Your task to perform on an android device: create a new album in the google photos Image 0: 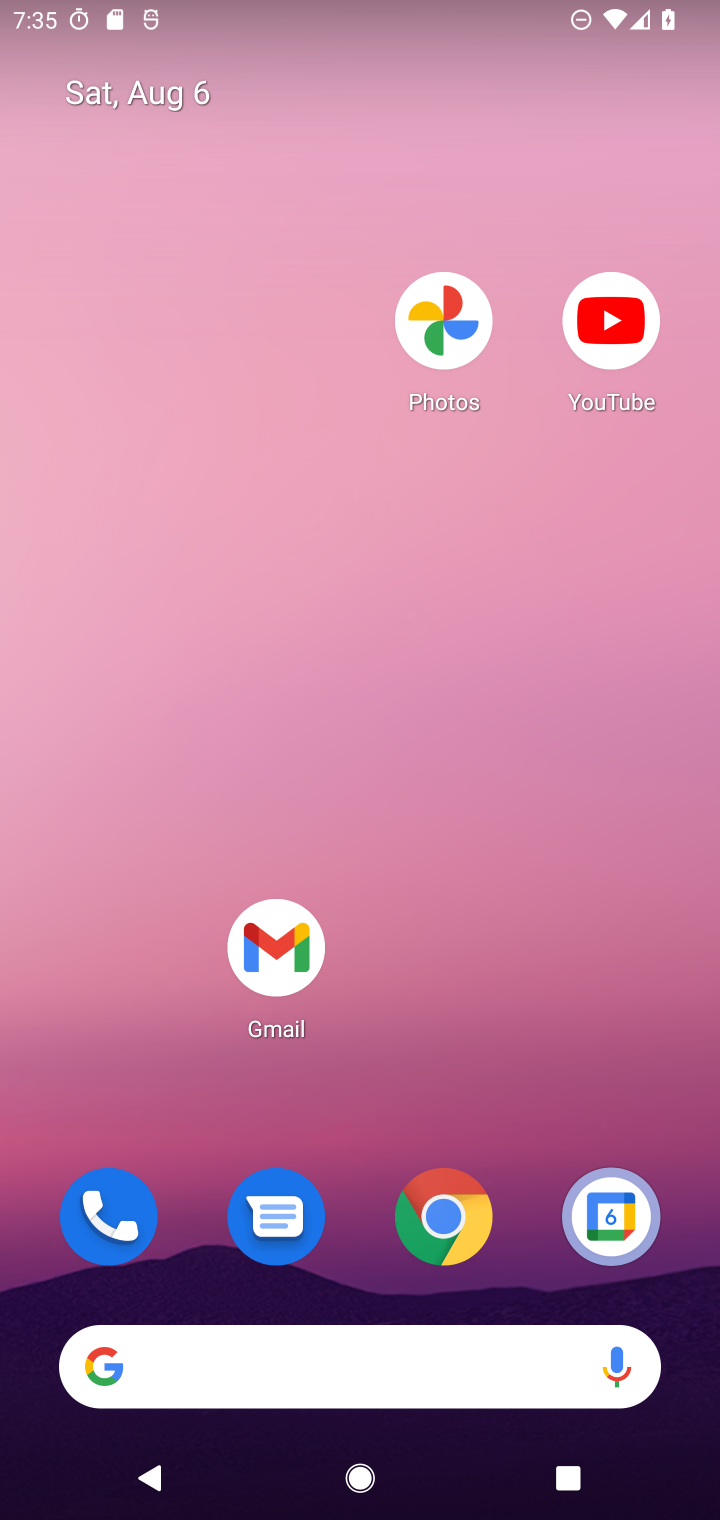
Step 0: drag from (556, 965) to (503, 156)
Your task to perform on an android device: create a new album in the google photos Image 1: 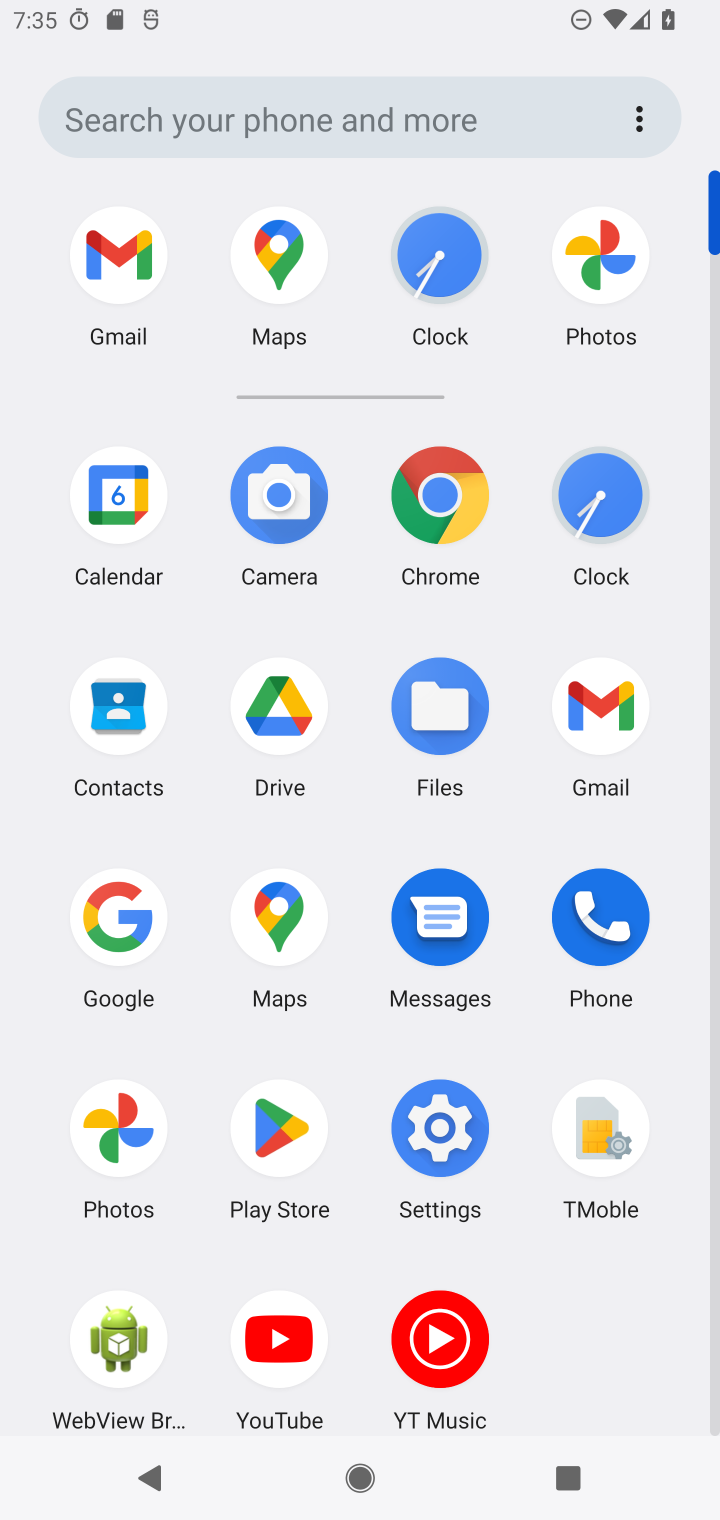
Step 1: click (130, 1132)
Your task to perform on an android device: create a new album in the google photos Image 2: 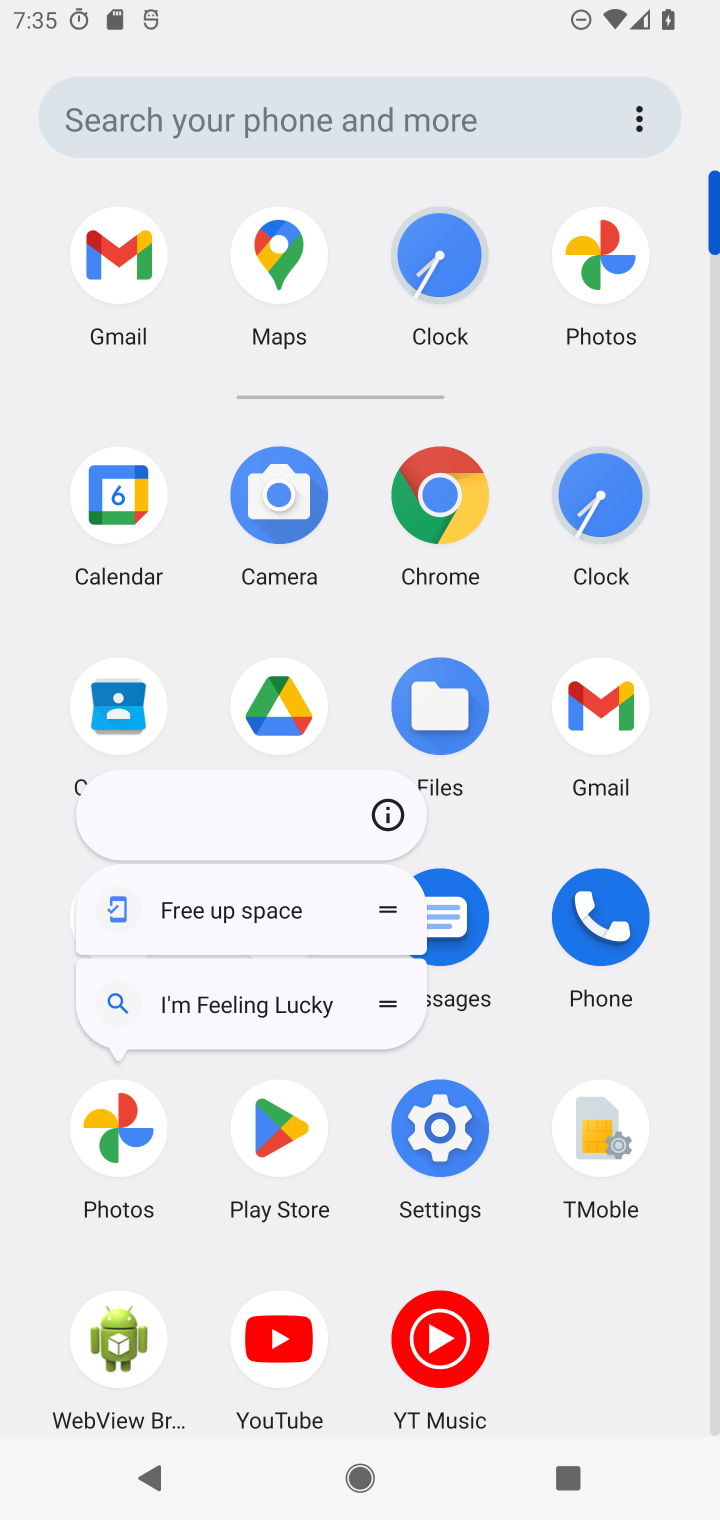
Step 2: click (130, 1127)
Your task to perform on an android device: create a new album in the google photos Image 3: 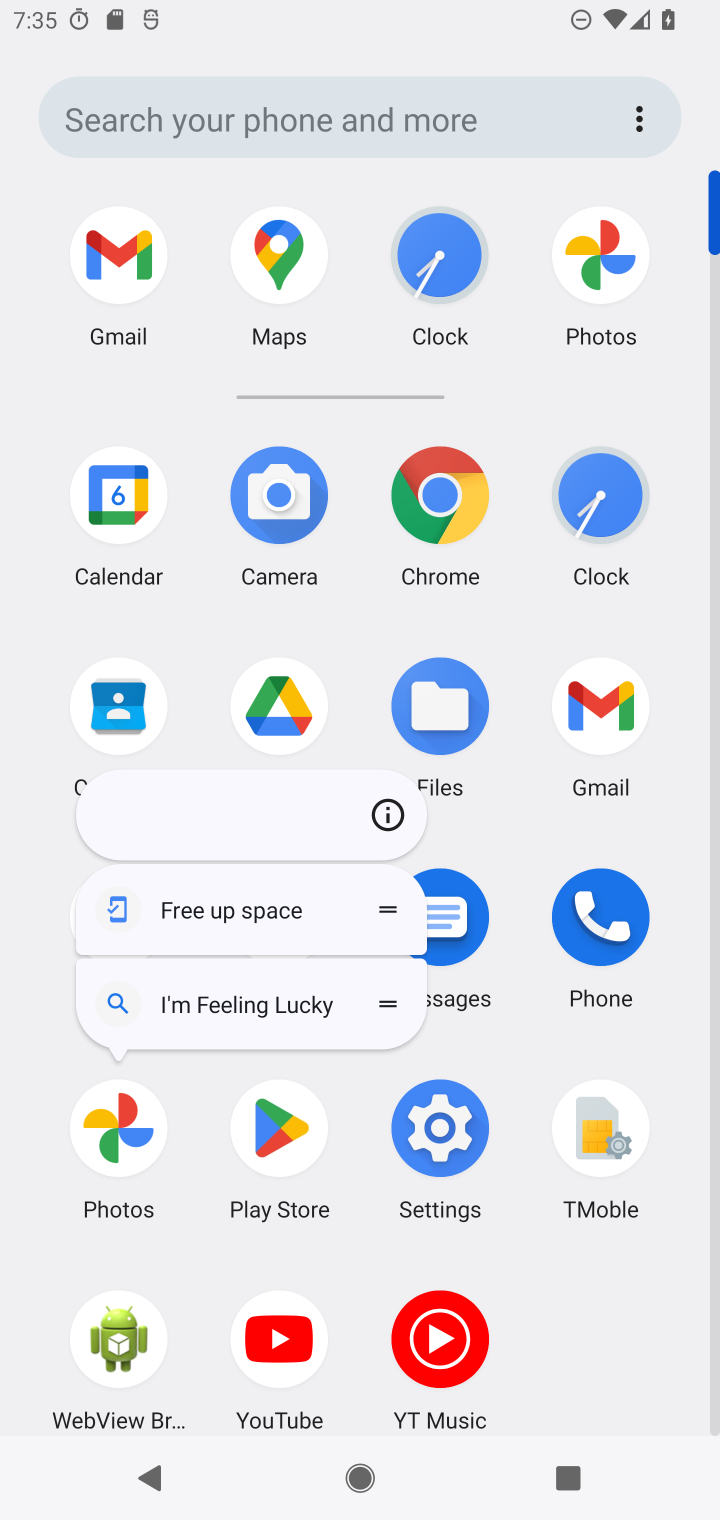
Step 3: click (130, 1114)
Your task to perform on an android device: create a new album in the google photos Image 4: 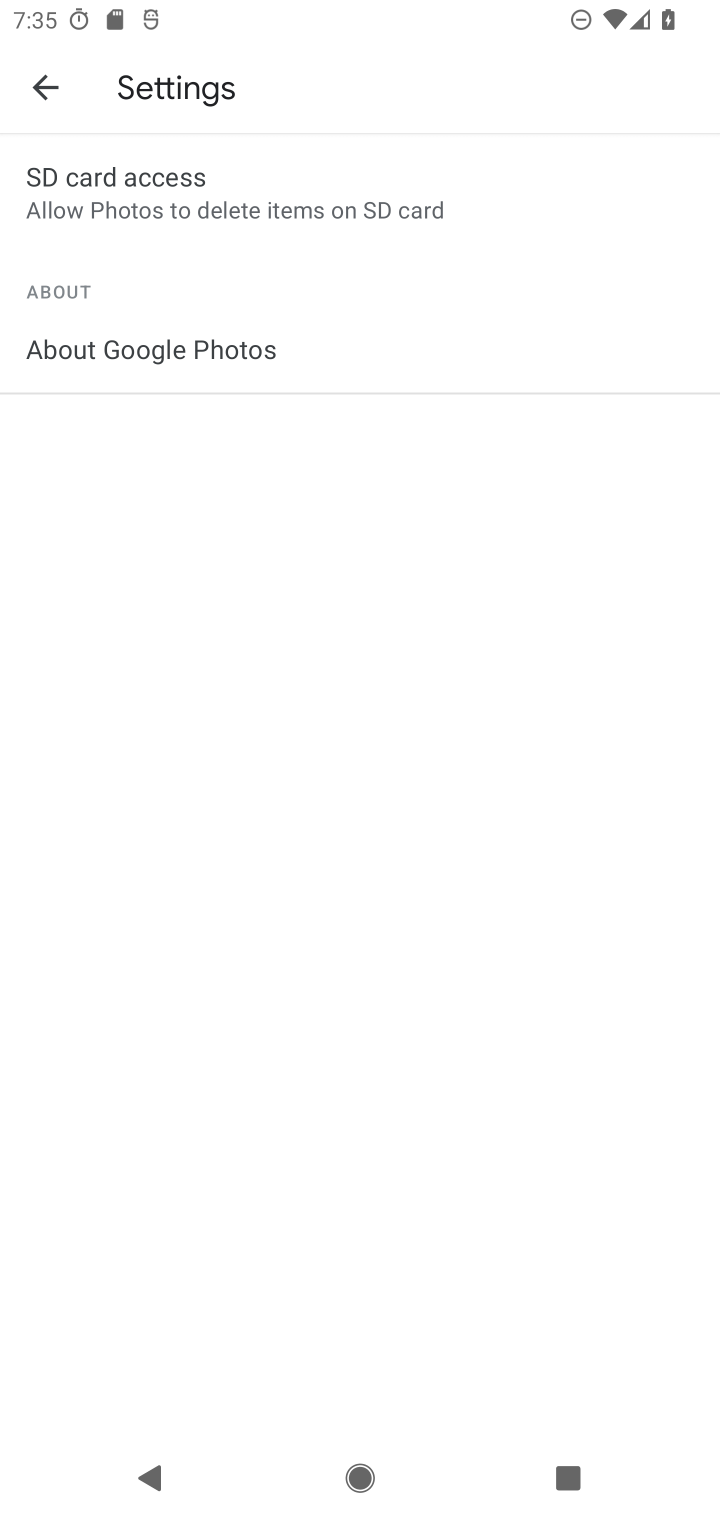
Step 4: click (44, 70)
Your task to perform on an android device: create a new album in the google photos Image 5: 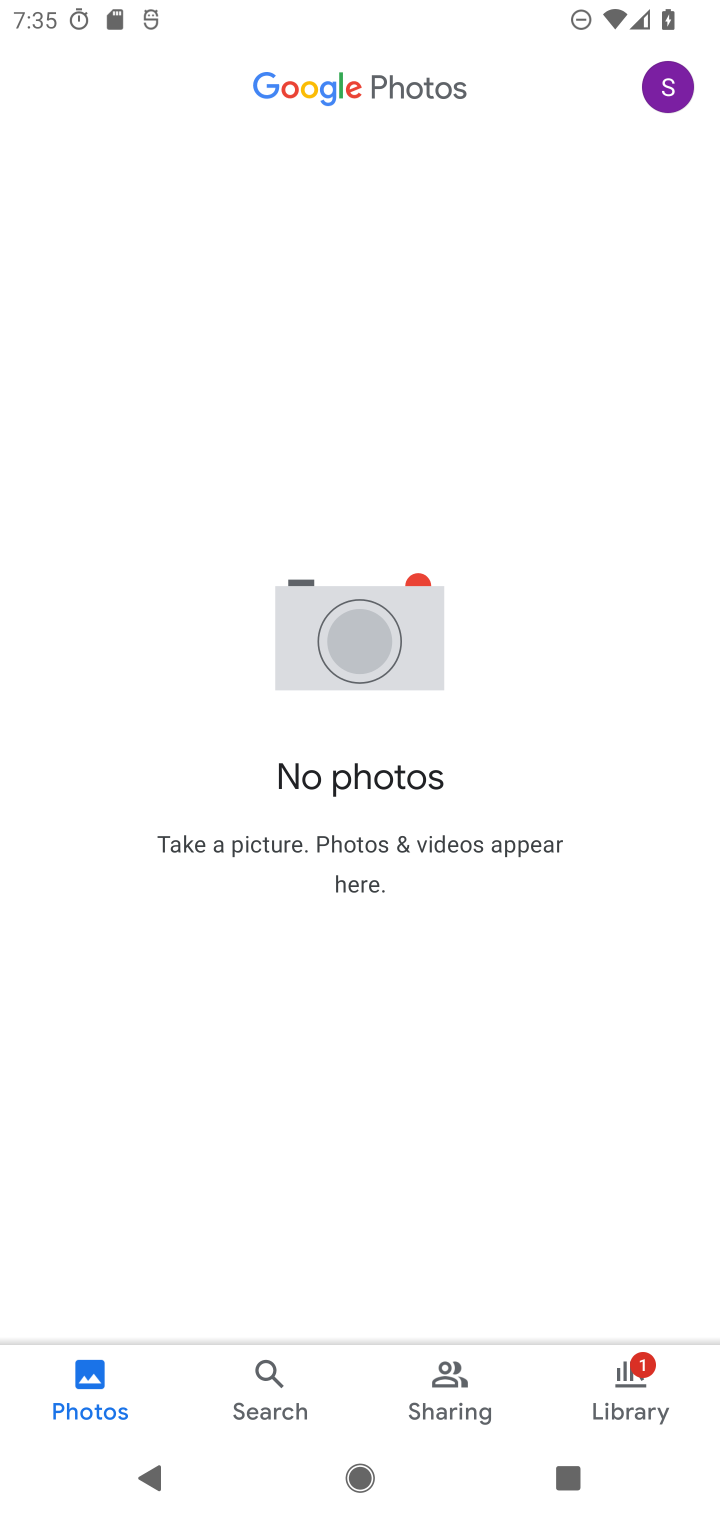
Step 5: click (664, 1399)
Your task to perform on an android device: create a new album in the google photos Image 6: 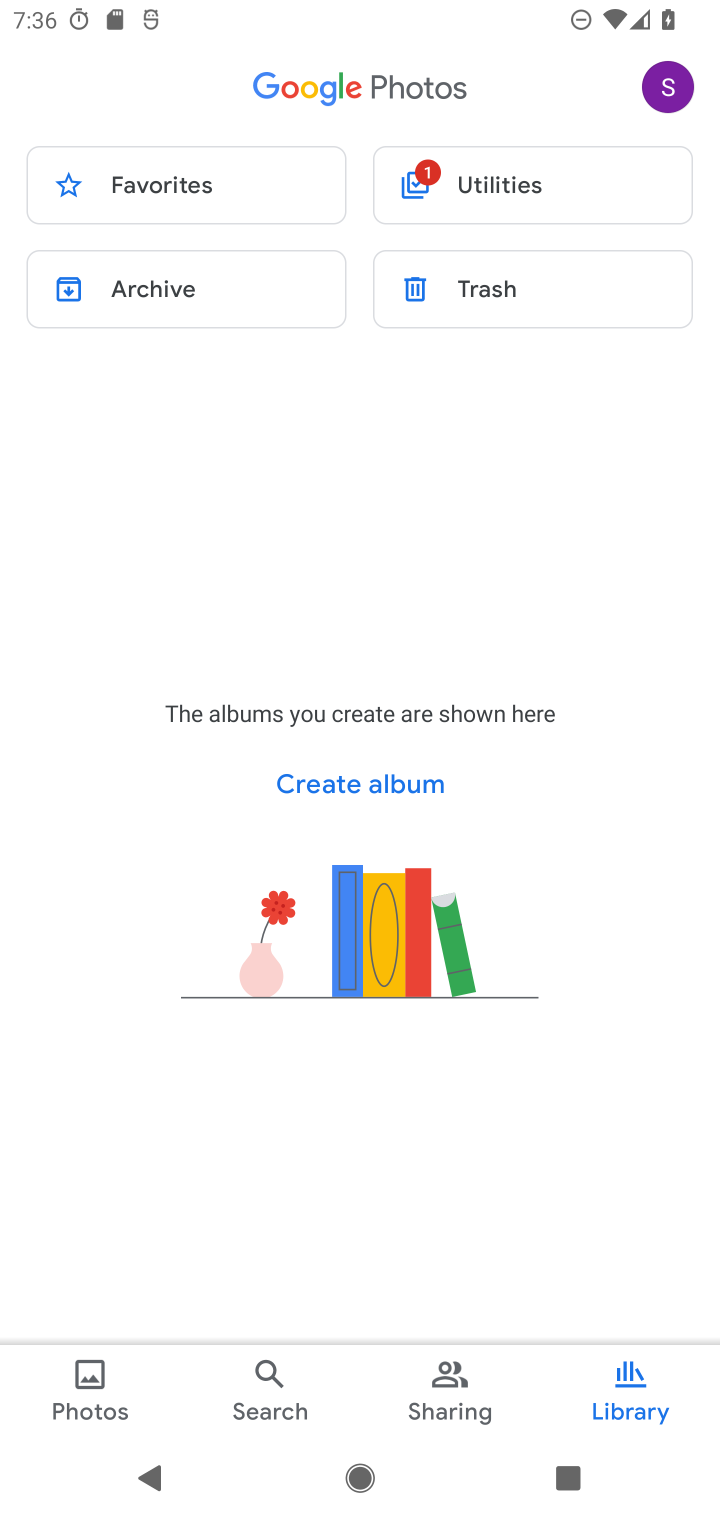
Step 6: click (369, 776)
Your task to perform on an android device: create a new album in the google photos Image 7: 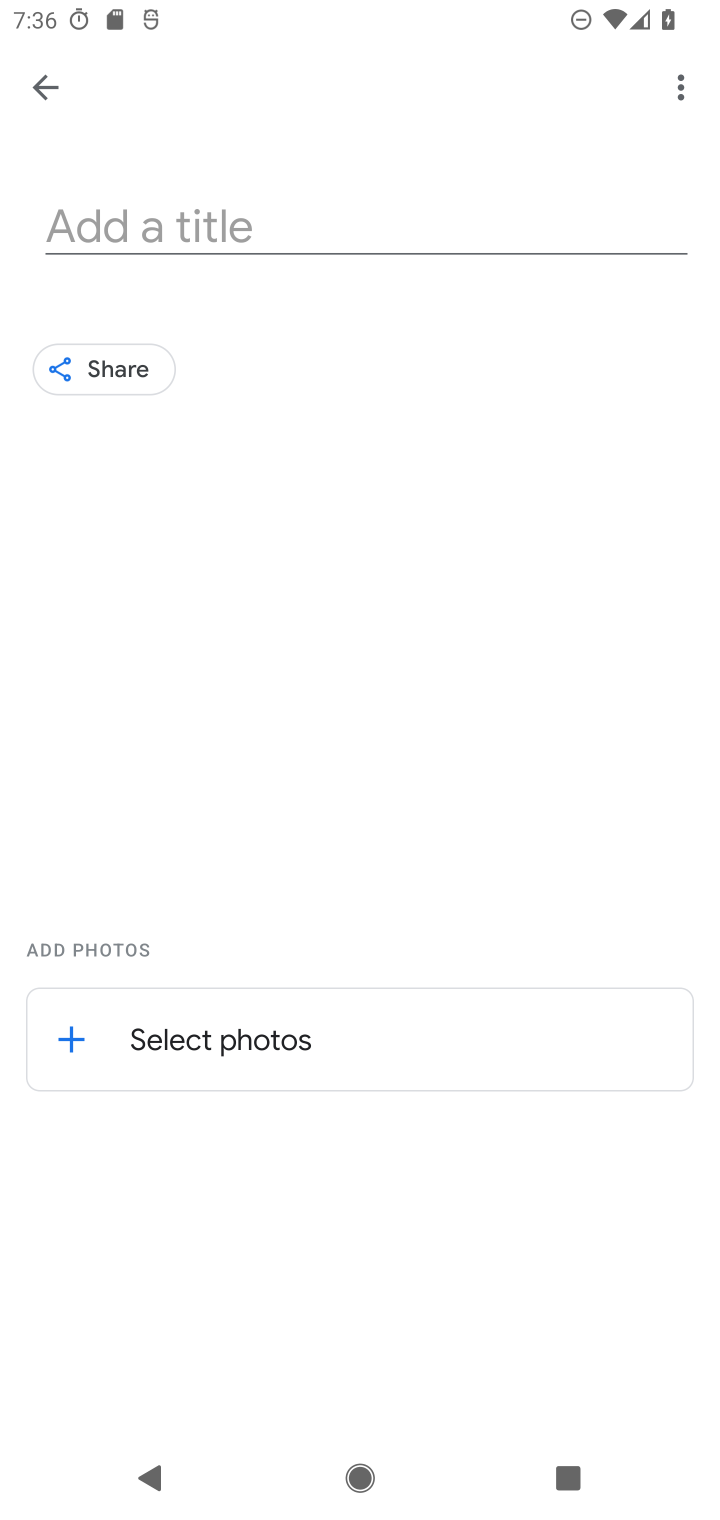
Step 7: click (326, 220)
Your task to perform on an android device: create a new album in the google photos Image 8: 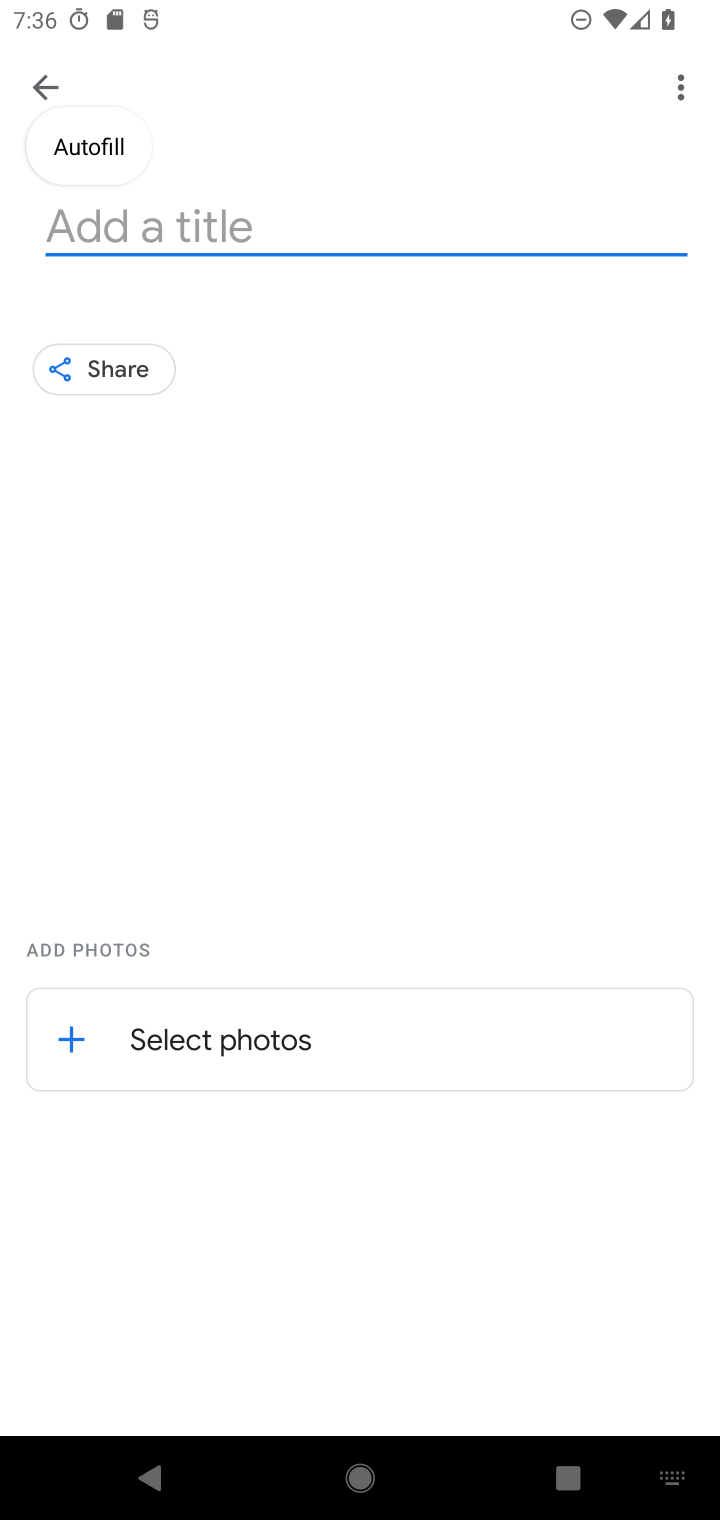
Step 8: type "over time"
Your task to perform on an android device: create a new album in the google photos Image 9: 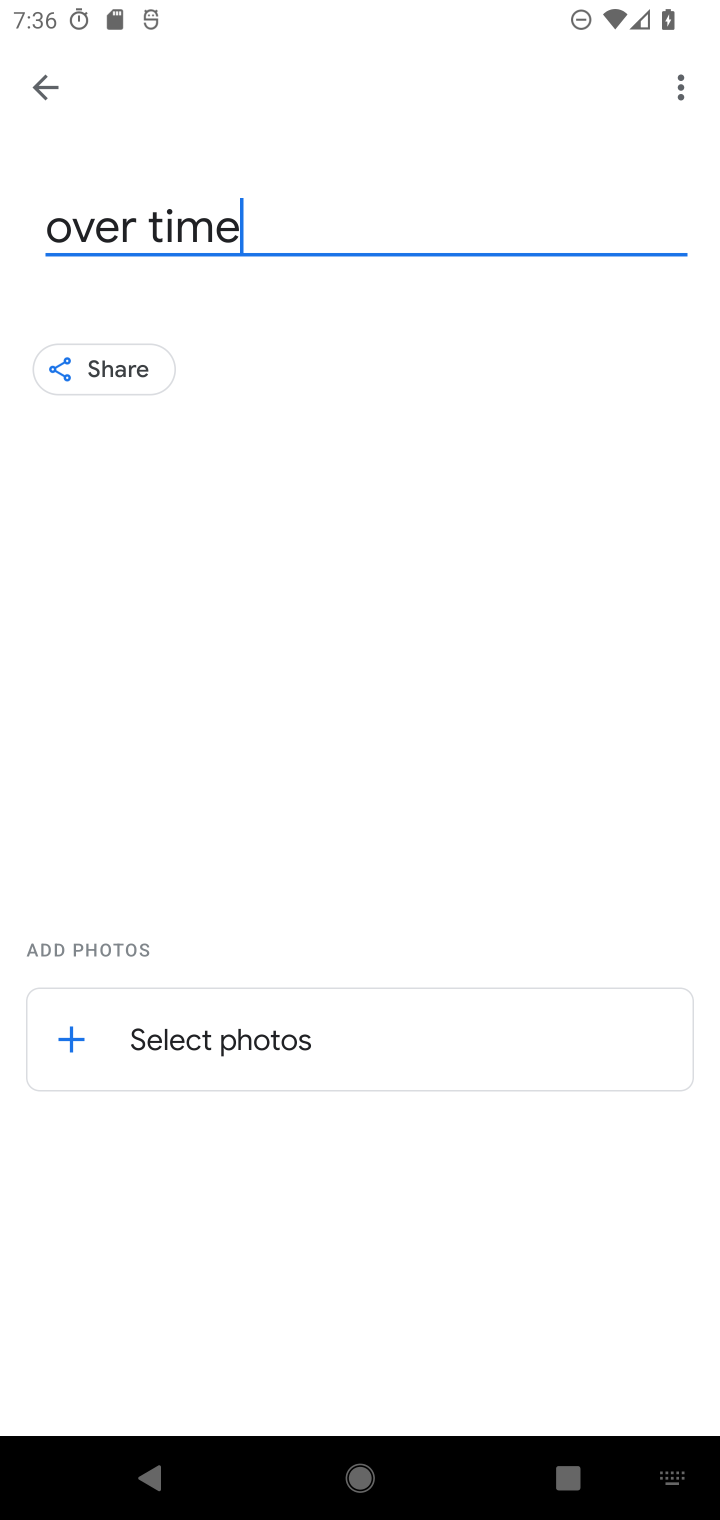
Step 9: press enter
Your task to perform on an android device: create a new album in the google photos Image 10: 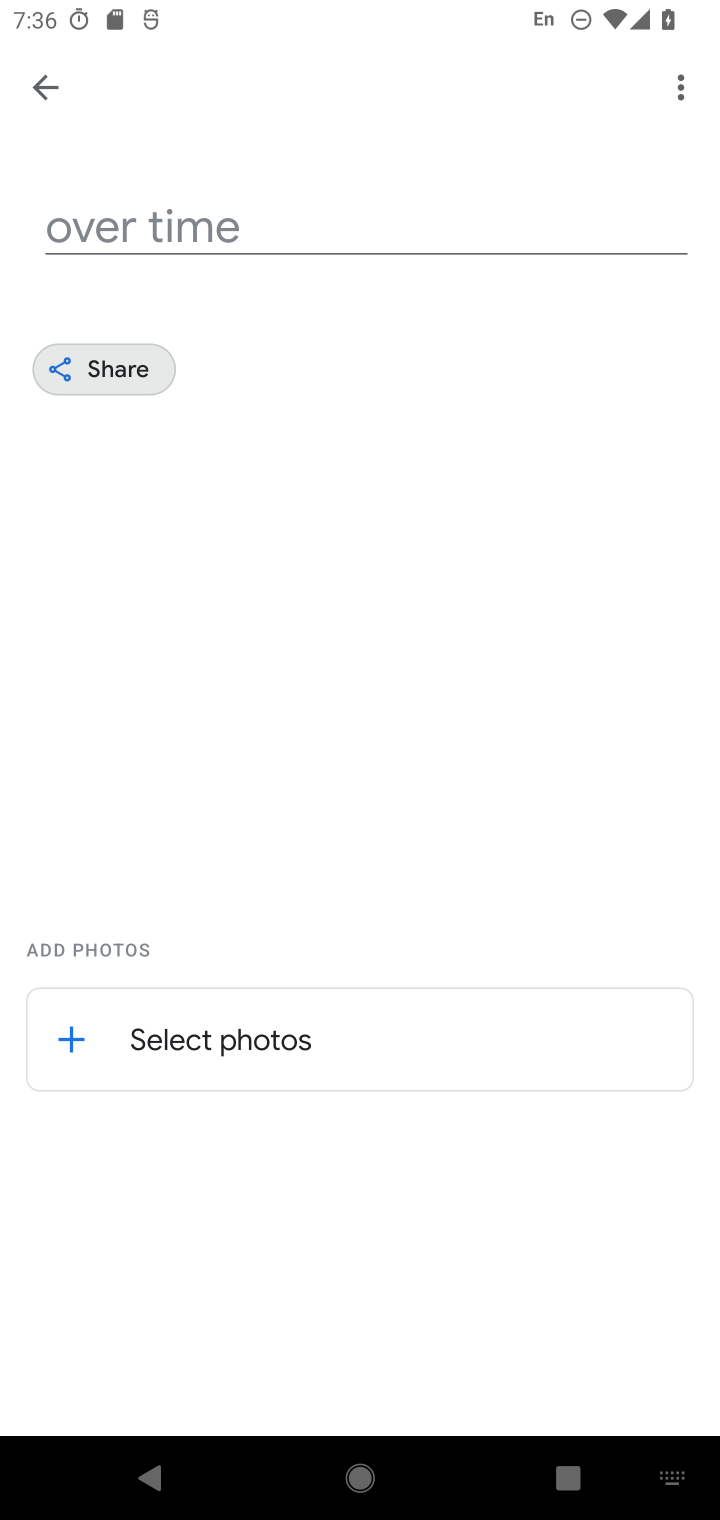
Step 10: click (310, 944)
Your task to perform on an android device: create a new album in the google photos Image 11: 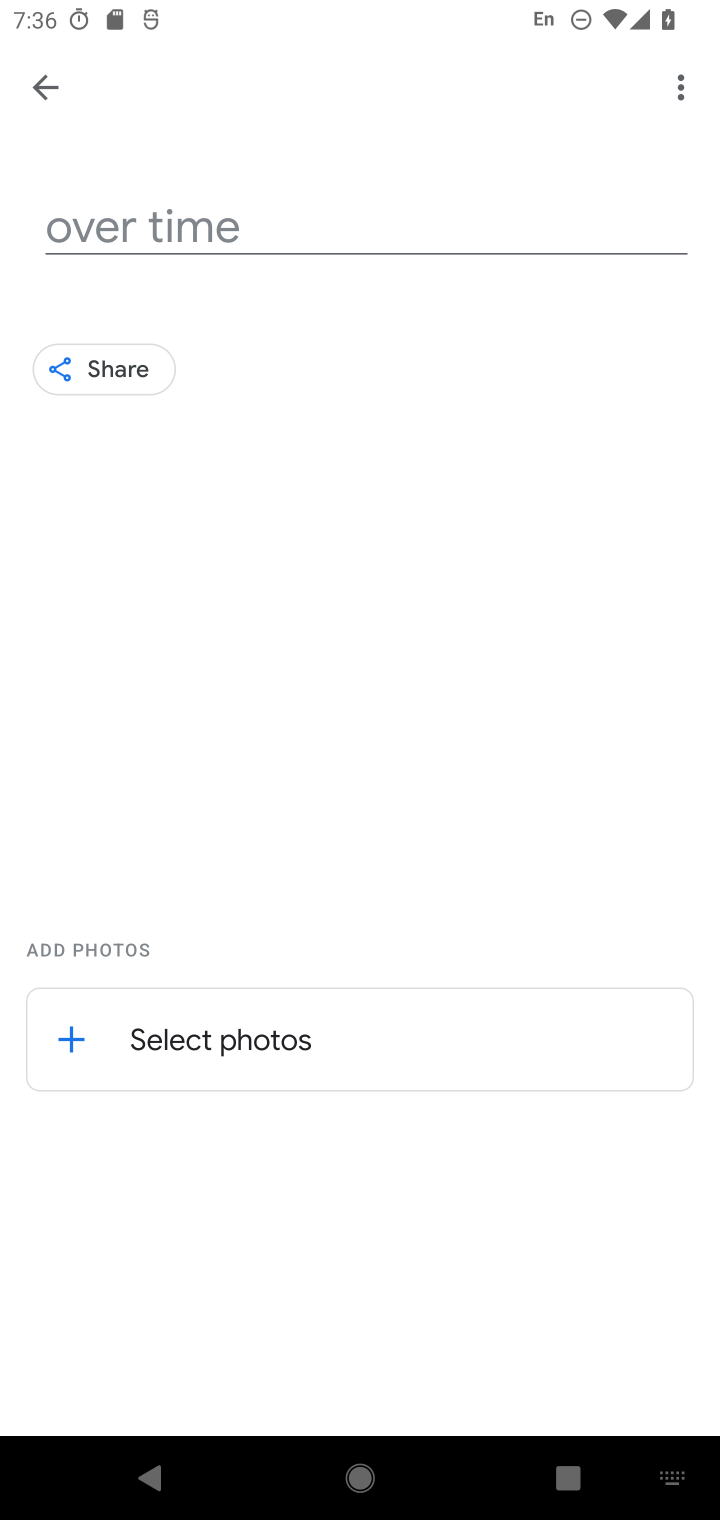
Step 11: click (680, 88)
Your task to perform on an android device: create a new album in the google photos Image 12: 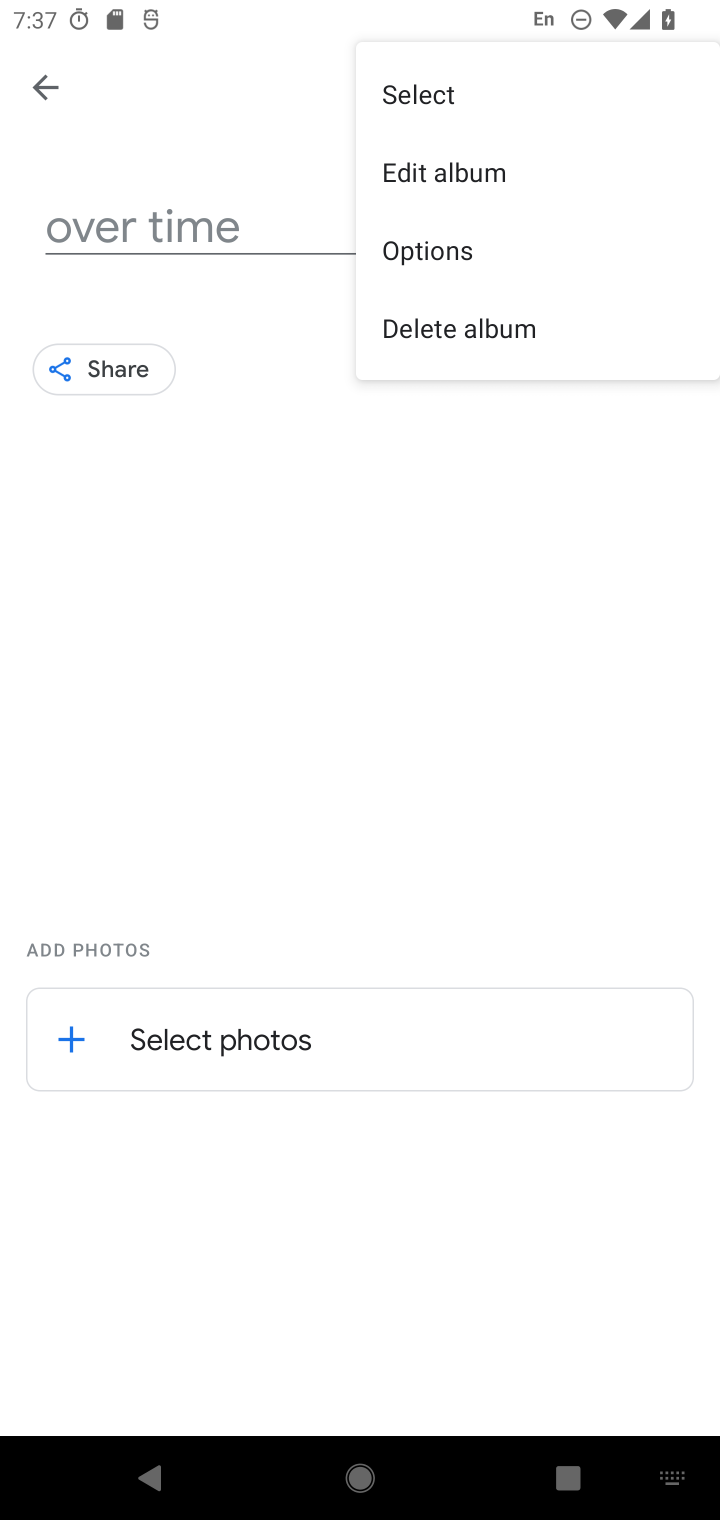
Step 12: task complete